Your task to perform on an android device: clear history in the chrome app Image 0: 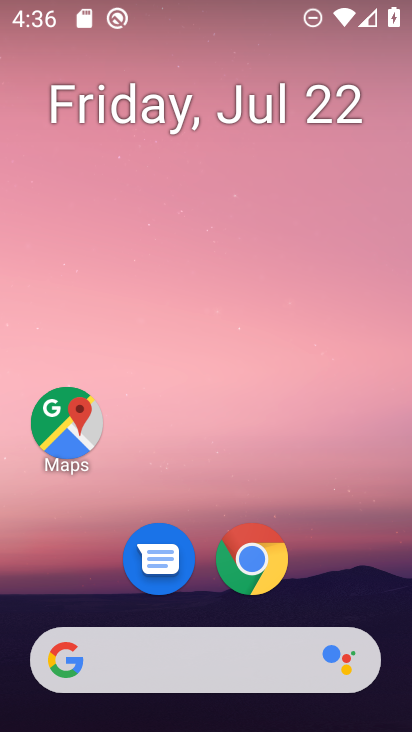
Step 0: click (251, 562)
Your task to perform on an android device: clear history in the chrome app Image 1: 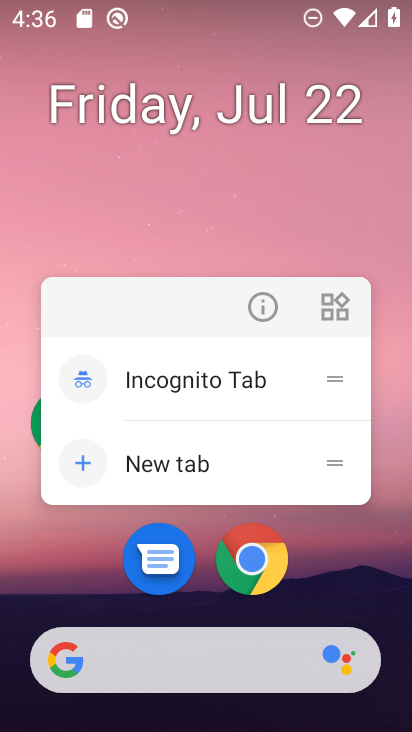
Step 1: click (251, 549)
Your task to perform on an android device: clear history in the chrome app Image 2: 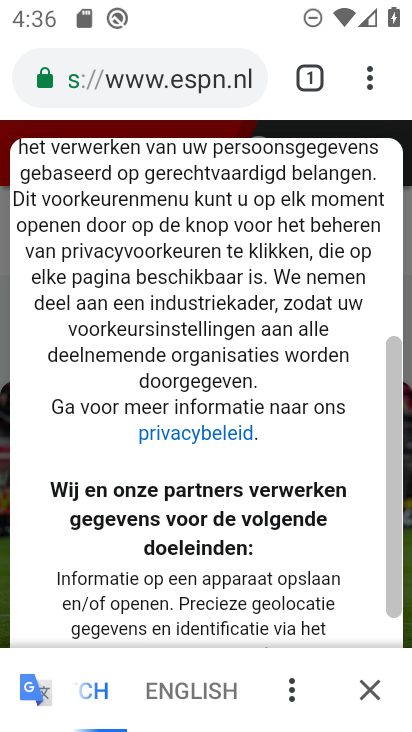
Step 2: drag from (367, 79) to (102, 426)
Your task to perform on an android device: clear history in the chrome app Image 3: 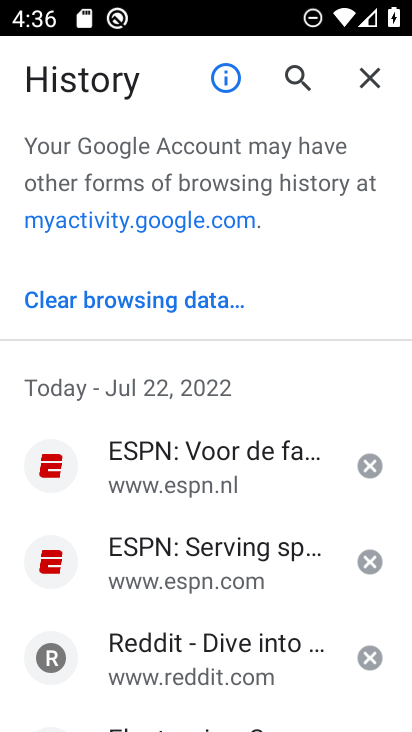
Step 3: click (91, 295)
Your task to perform on an android device: clear history in the chrome app Image 4: 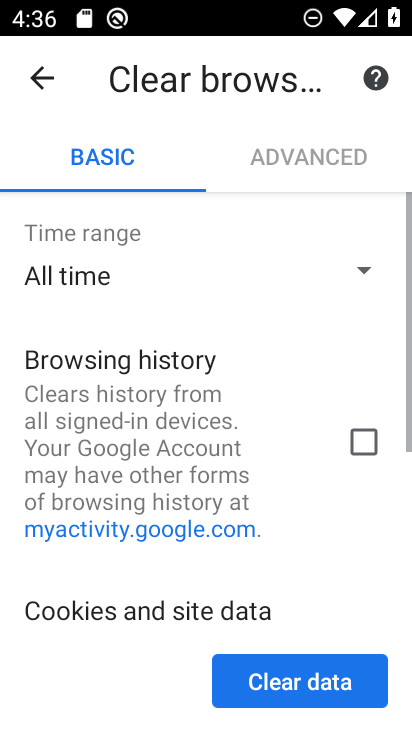
Step 4: click (346, 431)
Your task to perform on an android device: clear history in the chrome app Image 5: 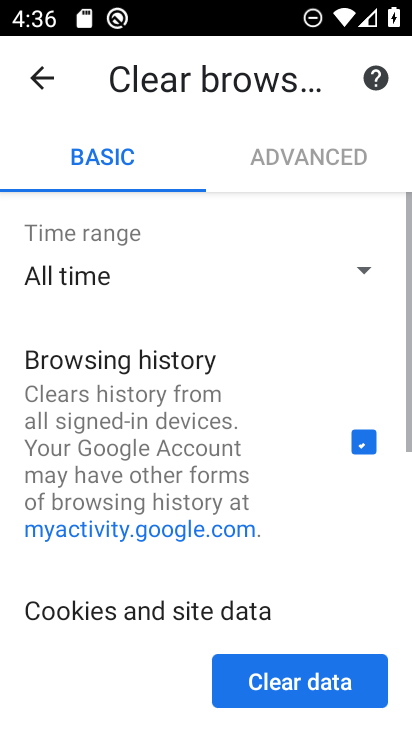
Step 5: drag from (154, 534) to (212, 158)
Your task to perform on an android device: clear history in the chrome app Image 6: 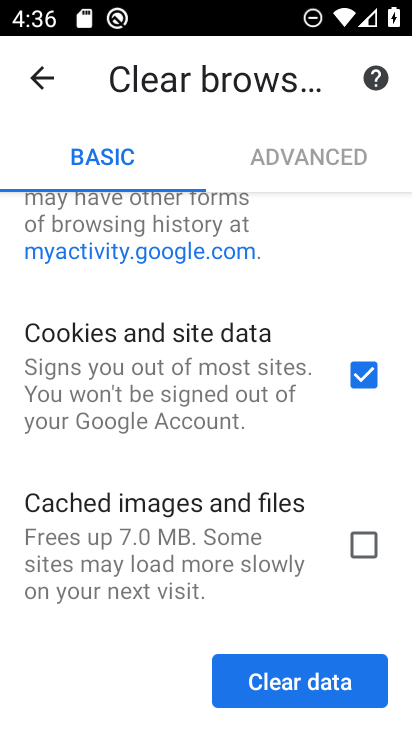
Step 6: click (362, 539)
Your task to perform on an android device: clear history in the chrome app Image 7: 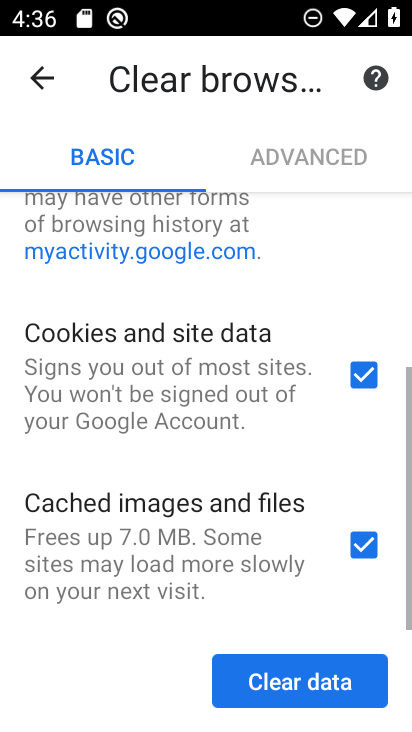
Step 7: click (262, 659)
Your task to perform on an android device: clear history in the chrome app Image 8: 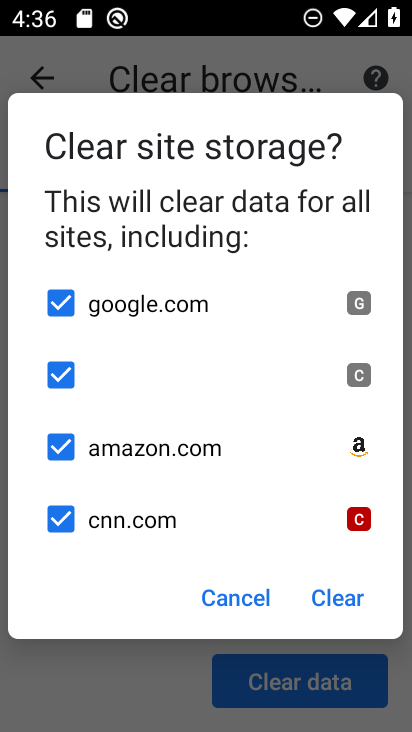
Step 8: click (328, 606)
Your task to perform on an android device: clear history in the chrome app Image 9: 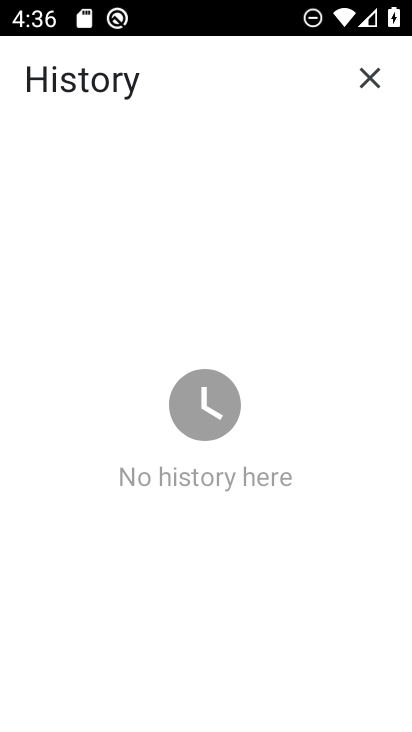
Step 9: task complete